Your task to perform on an android device: make emails show in primary in the gmail app Image 0: 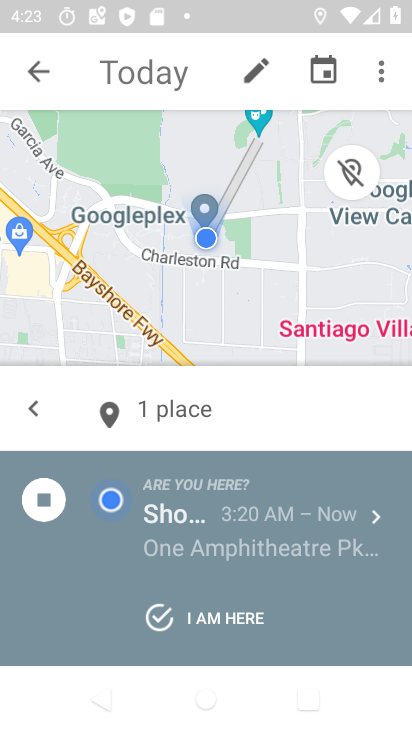
Step 0: press home button
Your task to perform on an android device: make emails show in primary in the gmail app Image 1: 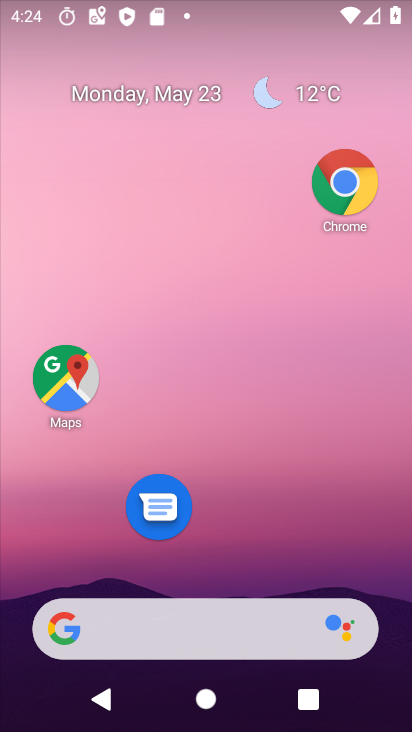
Step 1: drag from (146, 566) to (279, 9)
Your task to perform on an android device: make emails show in primary in the gmail app Image 2: 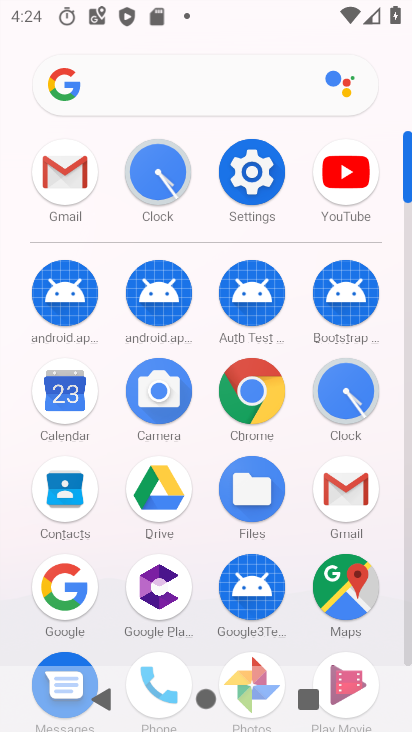
Step 2: click (353, 463)
Your task to perform on an android device: make emails show in primary in the gmail app Image 3: 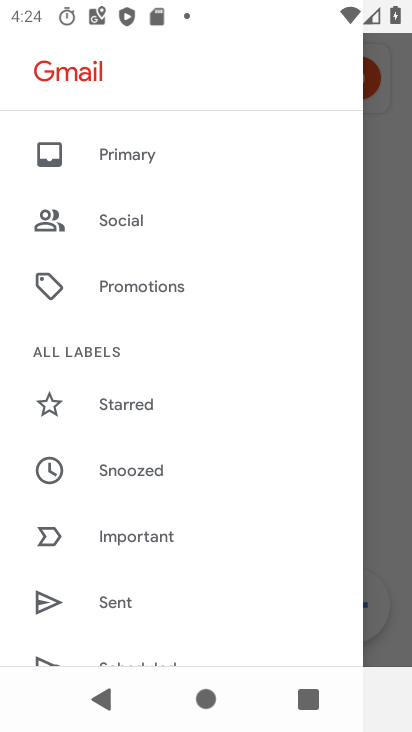
Step 3: click (124, 134)
Your task to perform on an android device: make emails show in primary in the gmail app Image 4: 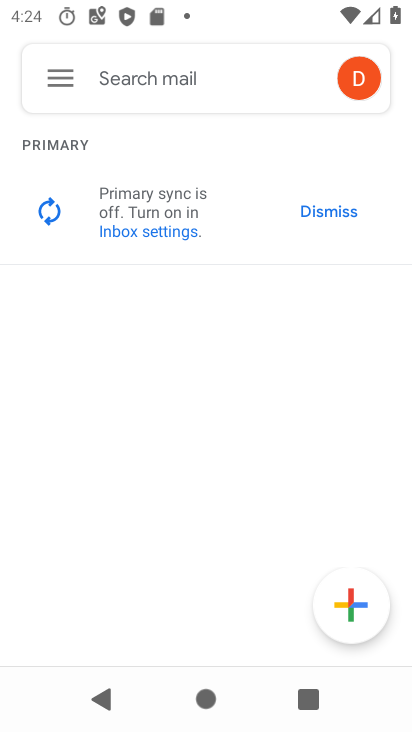
Step 4: task complete